Your task to perform on an android device: turn on sleep mode Image 0: 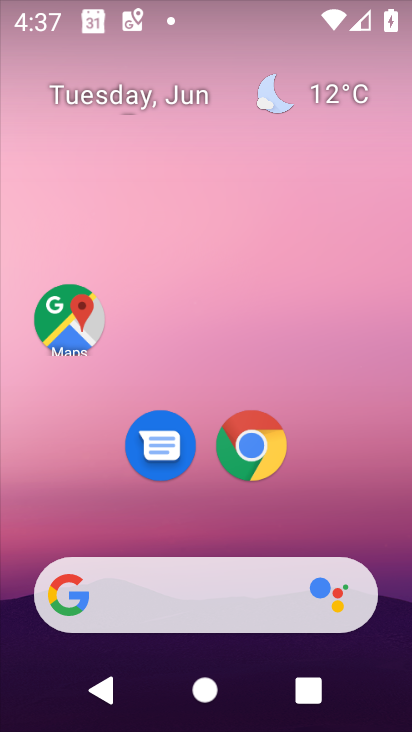
Step 0: drag from (346, 476) to (359, 20)
Your task to perform on an android device: turn on sleep mode Image 1: 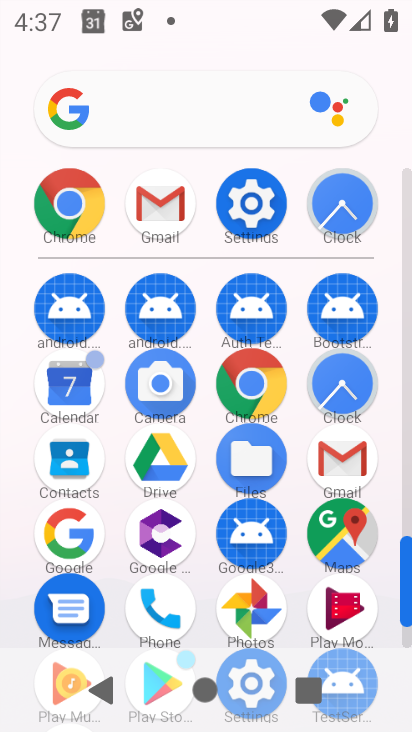
Step 1: click (253, 218)
Your task to perform on an android device: turn on sleep mode Image 2: 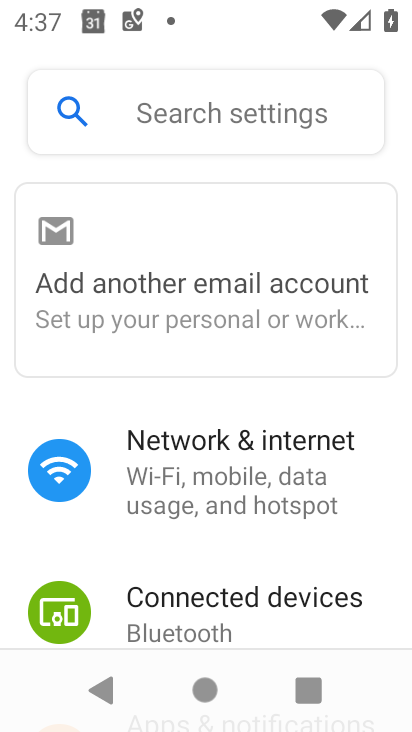
Step 2: drag from (203, 572) to (240, 135)
Your task to perform on an android device: turn on sleep mode Image 3: 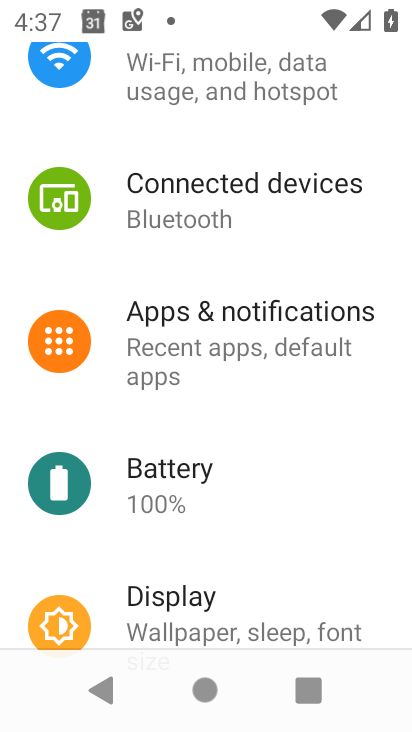
Step 3: drag from (193, 580) to (260, 146)
Your task to perform on an android device: turn on sleep mode Image 4: 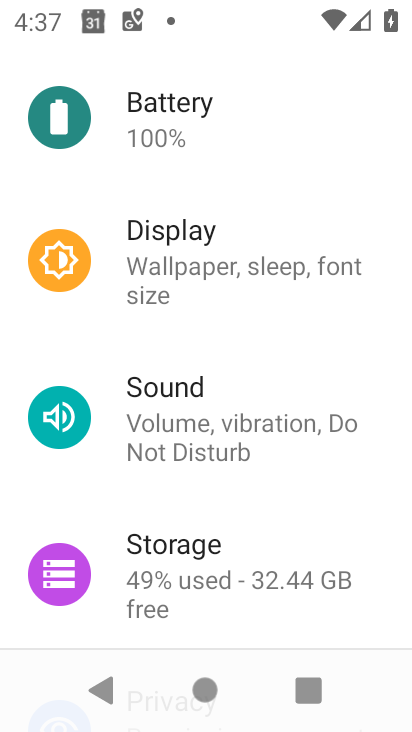
Step 4: click (190, 238)
Your task to perform on an android device: turn on sleep mode Image 5: 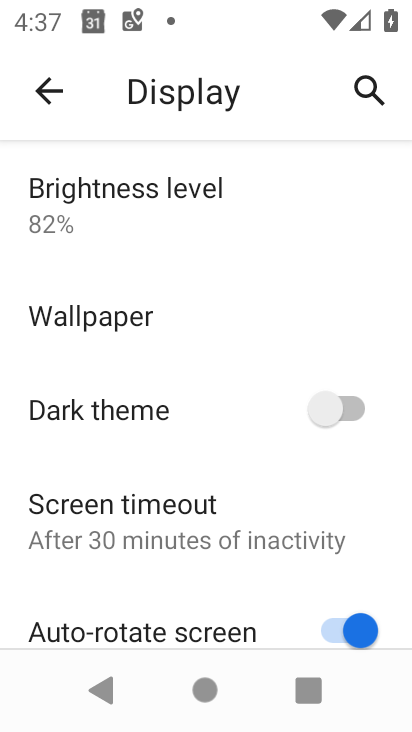
Step 5: click (96, 503)
Your task to perform on an android device: turn on sleep mode Image 6: 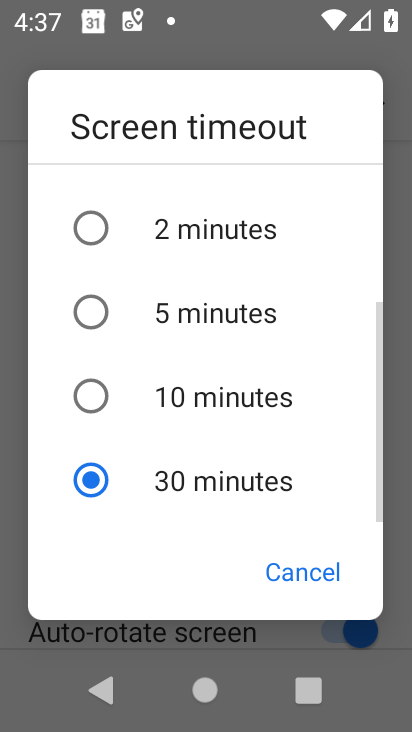
Step 6: task complete